Your task to perform on an android device: Go to Wikipedia Image 0: 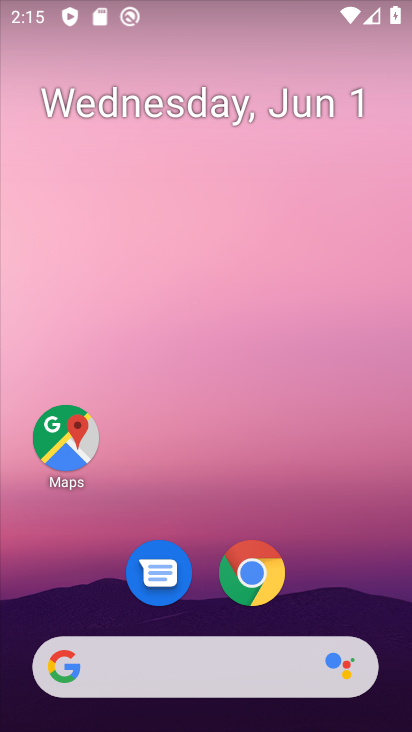
Step 0: click (263, 559)
Your task to perform on an android device: Go to Wikipedia Image 1: 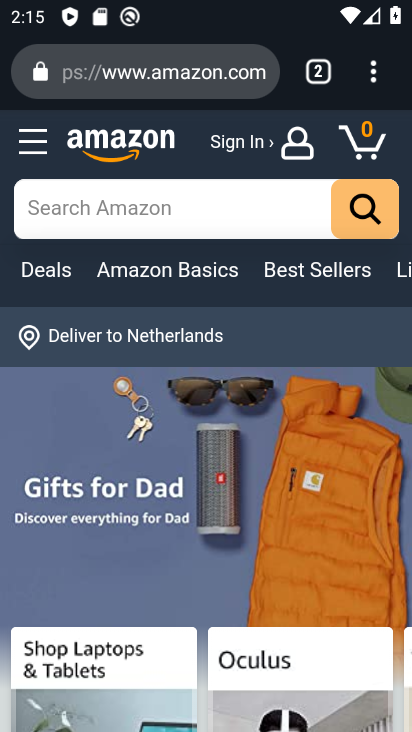
Step 1: click (307, 61)
Your task to perform on an android device: Go to Wikipedia Image 2: 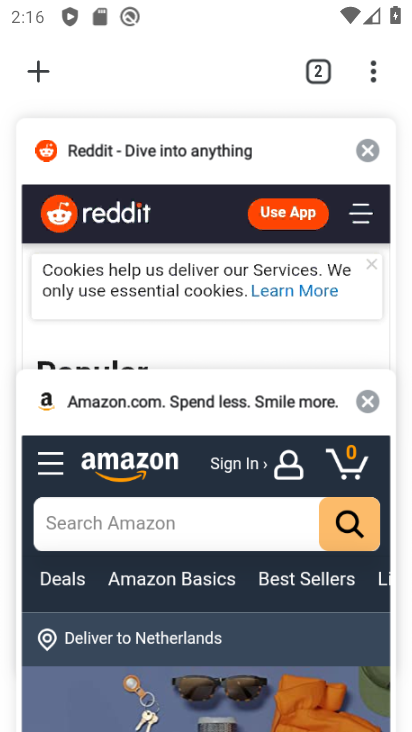
Step 2: click (309, 74)
Your task to perform on an android device: Go to Wikipedia Image 3: 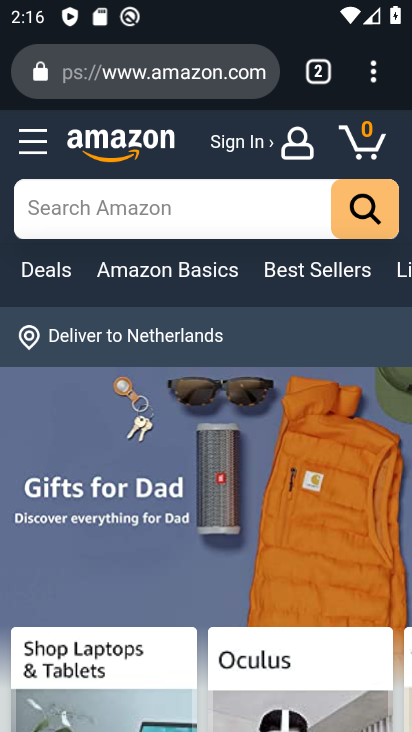
Step 3: click (308, 76)
Your task to perform on an android device: Go to Wikipedia Image 4: 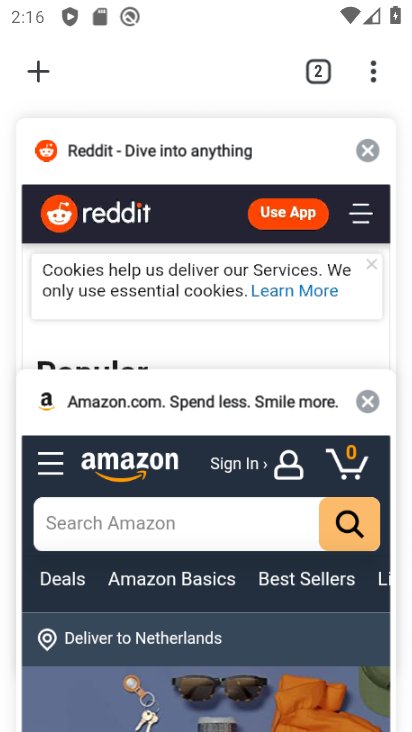
Step 4: click (33, 65)
Your task to perform on an android device: Go to Wikipedia Image 5: 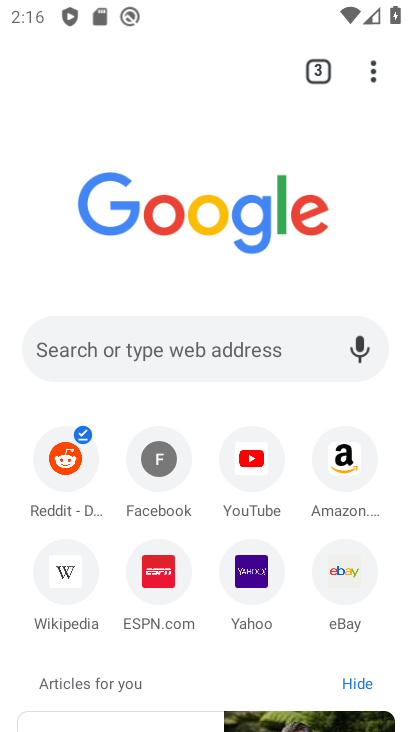
Step 5: click (79, 572)
Your task to perform on an android device: Go to Wikipedia Image 6: 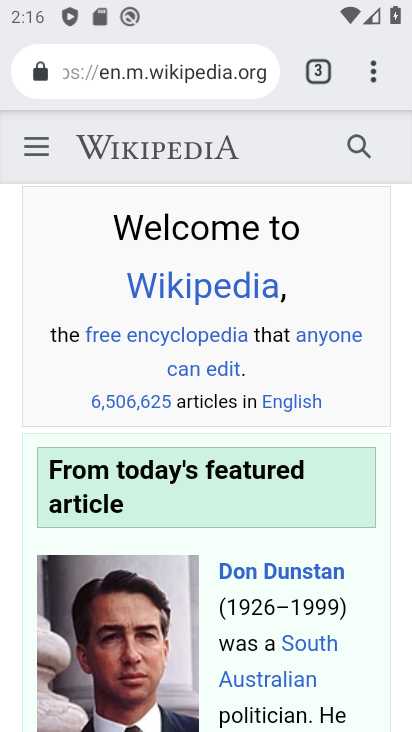
Step 6: task complete